Your task to perform on an android device: View the shopping cart on costco.com. Add "asus rog" to the cart on costco.com, then select checkout. Image 0: 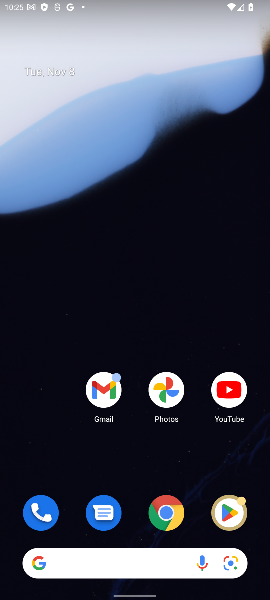
Step 0: click (166, 516)
Your task to perform on an android device: View the shopping cart on costco.com. Add "asus rog" to the cart on costco.com, then select checkout. Image 1: 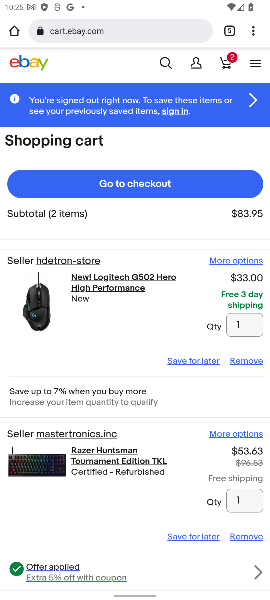
Step 1: click (230, 32)
Your task to perform on an android device: View the shopping cart on costco.com. Add "asus rog" to the cart on costco.com, then select checkout. Image 2: 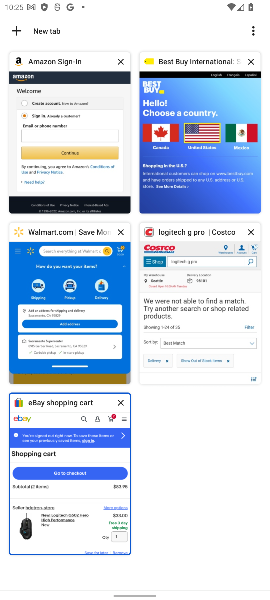
Step 2: click (183, 281)
Your task to perform on an android device: View the shopping cart on costco.com. Add "asus rog" to the cart on costco.com, then select checkout. Image 3: 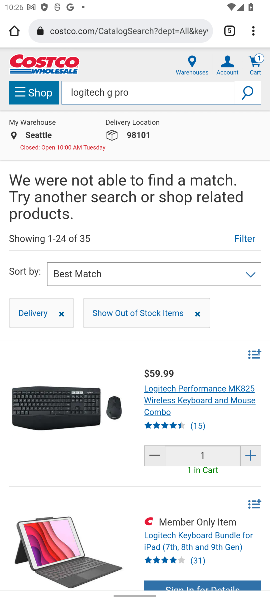
Step 3: click (254, 64)
Your task to perform on an android device: View the shopping cart on costco.com. Add "asus rog" to the cart on costco.com, then select checkout. Image 4: 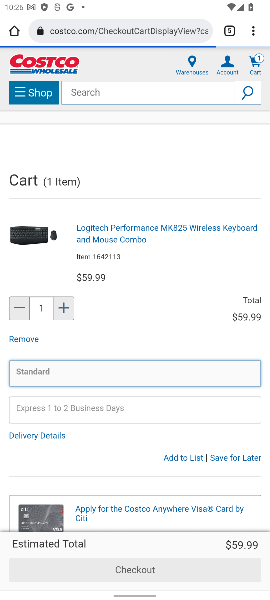
Step 4: click (125, 90)
Your task to perform on an android device: View the shopping cart on costco.com. Add "asus rog" to the cart on costco.com, then select checkout. Image 5: 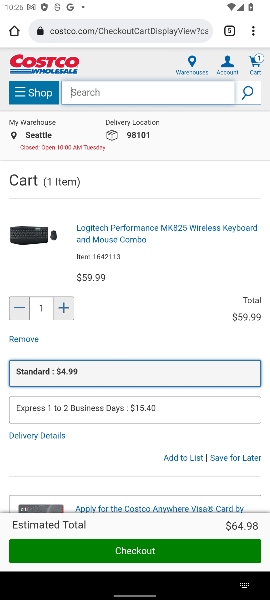
Step 5: type "asus rog"
Your task to perform on an android device: View the shopping cart on costco.com. Add "asus rog" to the cart on costco.com, then select checkout. Image 6: 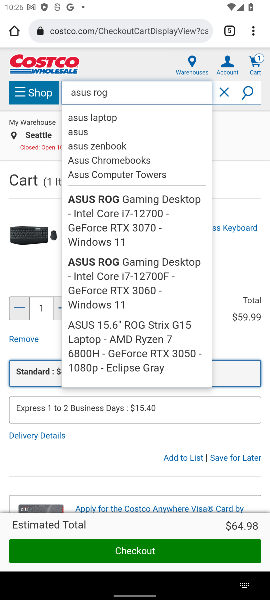
Step 6: click (130, 205)
Your task to perform on an android device: View the shopping cart on costco.com. Add "asus rog" to the cart on costco.com, then select checkout. Image 7: 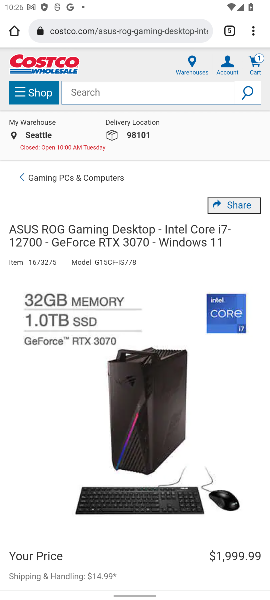
Step 7: drag from (160, 531) to (260, 211)
Your task to perform on an android device: View the shopping cart on costco.com. Add "asus rog" to the cart on costco.com, then select checkout. Image 8: 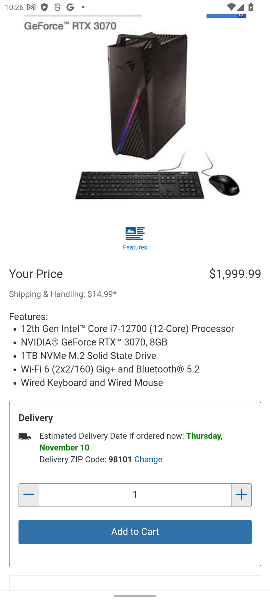
Step 8: click (144, 530)
Your task to perform on an android device: View the shopping cart on costco.com. Add "asus rog" to the cart on costco.com, then select checkout. Image 9: 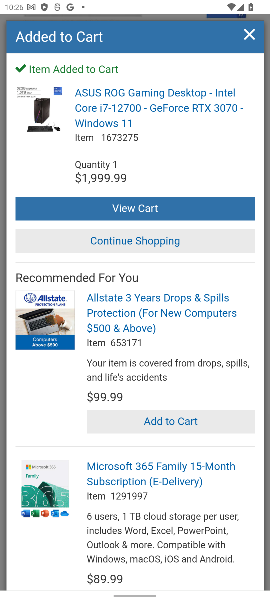
Step 9: click (147, 211)
Your task to perform on an android device: View the shopping cart on costco.com. Add "asus rog" to the cart on costco.com, then select checkout. Image 10: 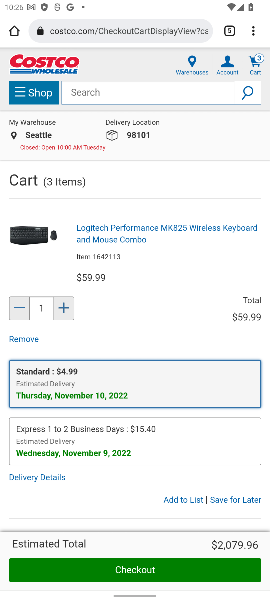
Step 10: click (148, 574)
Your task to perform on an android device: View the shopping cart on costco.com. Add "asus rog" to the cart on costco.com, then select checkout. Image 11: 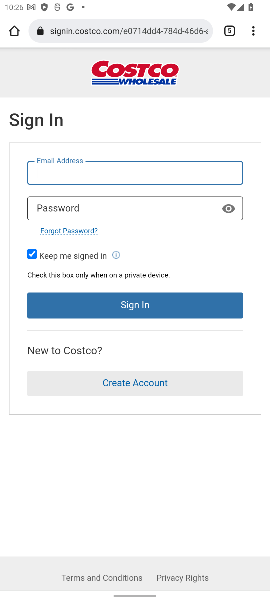
Step 11: task complete